Your task to perform on an android device: check data usage Image 0: 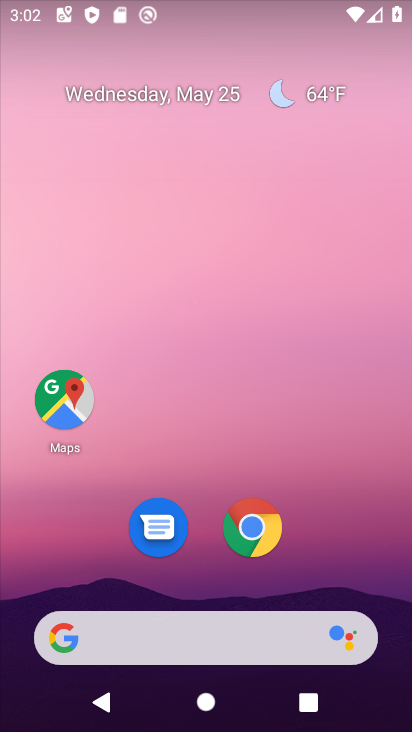
Step 0: drag from (198, 553) to (212, 127)
Your task to perform on an android device: check data usage Image 1: 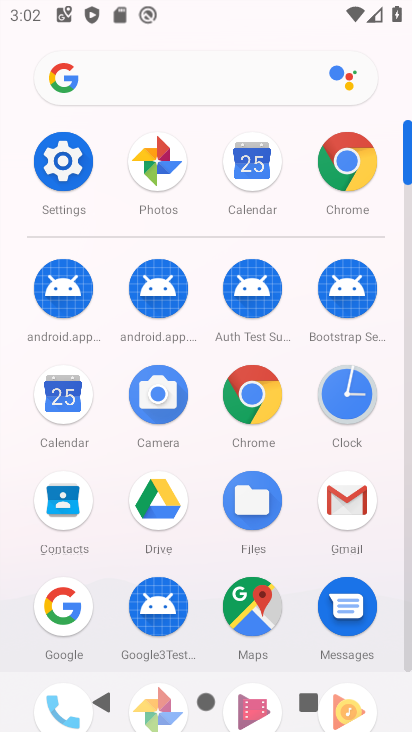
Step 1: click (63, 170)
Your task to perform on an android device: check data usage Image 2: 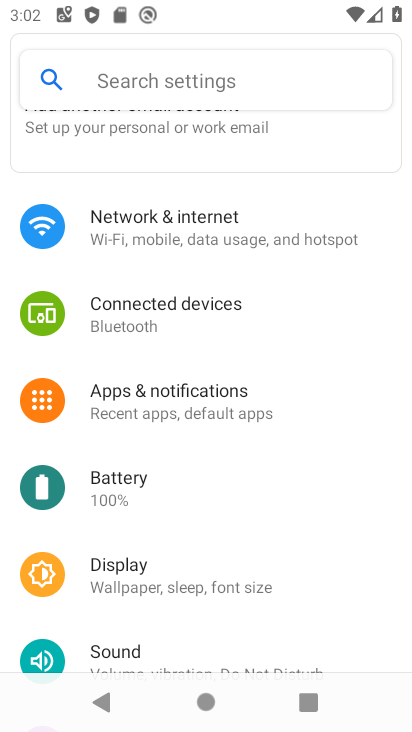
Step 2: click (169, 236)
Your task to perform on an android device: check data usage Image 3: 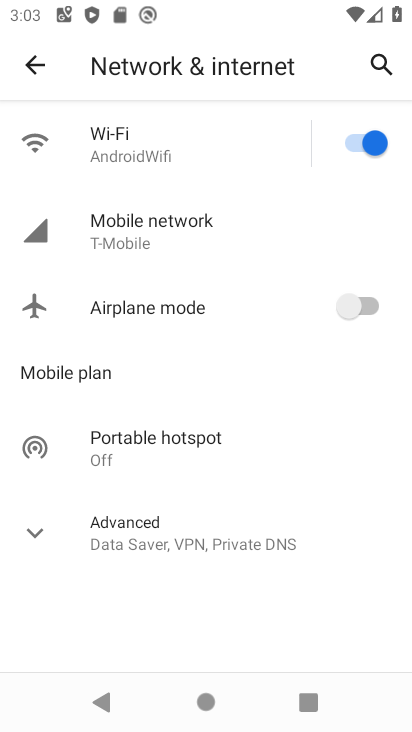
Step 3: click (144, 229)
Your task to perform on an android device: check data usage Image 4: 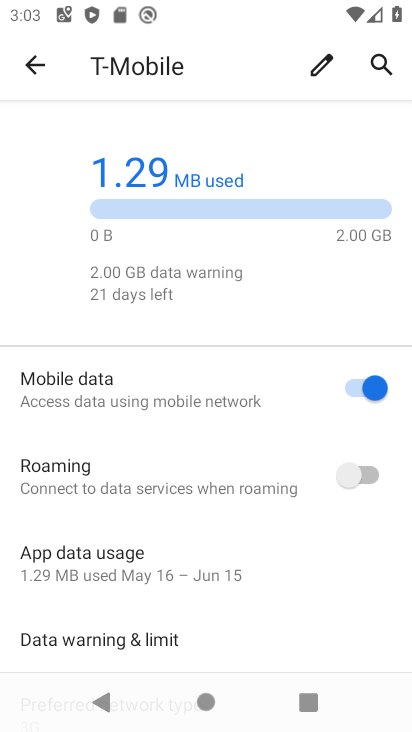
Step 4: click (136, 558)
Your task to perform on an android device: check data usage Image 5: 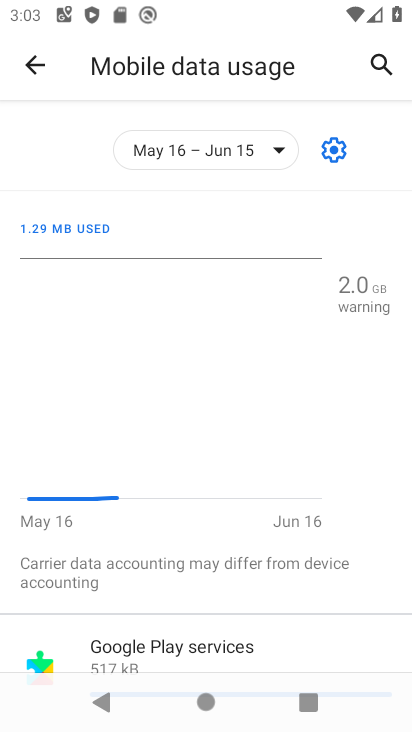
Step 5: task complete